Your task to perform on an android device: Open accessibility settings Image 0: 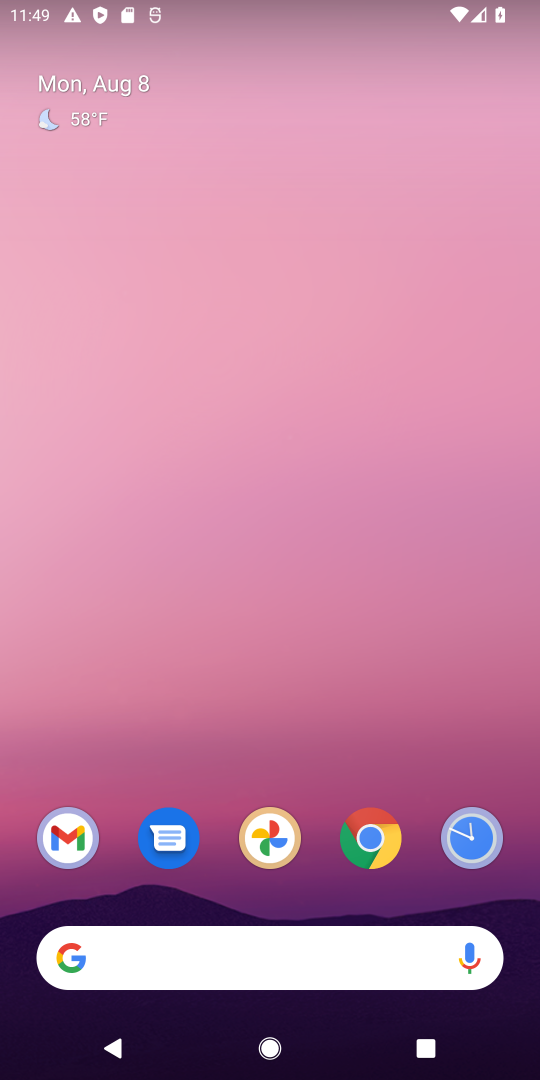
Step 0: press home button
Your task to perform on an android device: Open accessibility settings Image 1: 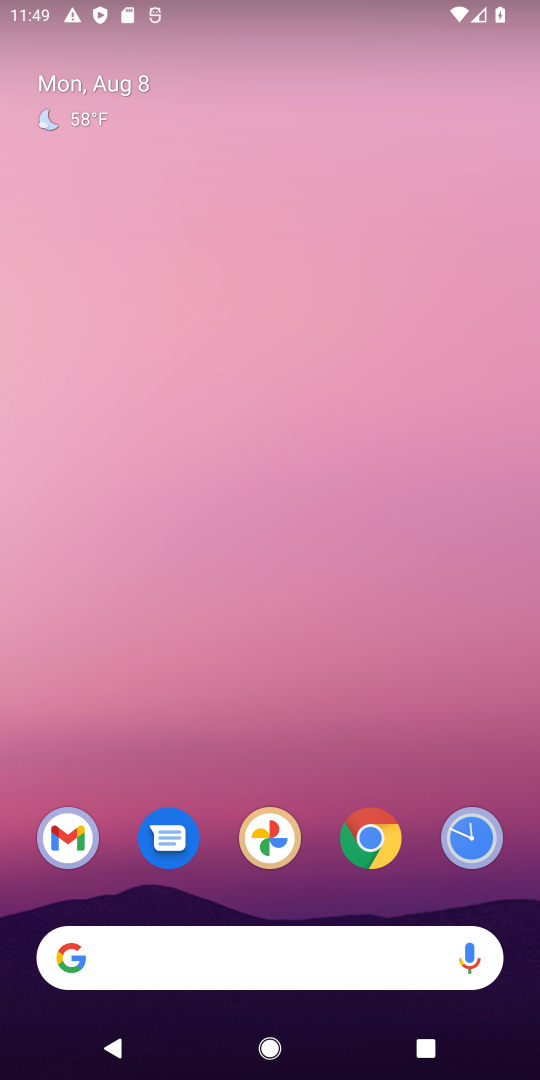
Step 1: drag from (345, 886) to (255, 161)
Your task to perform on an android device: Open accessibility settings Image 2: 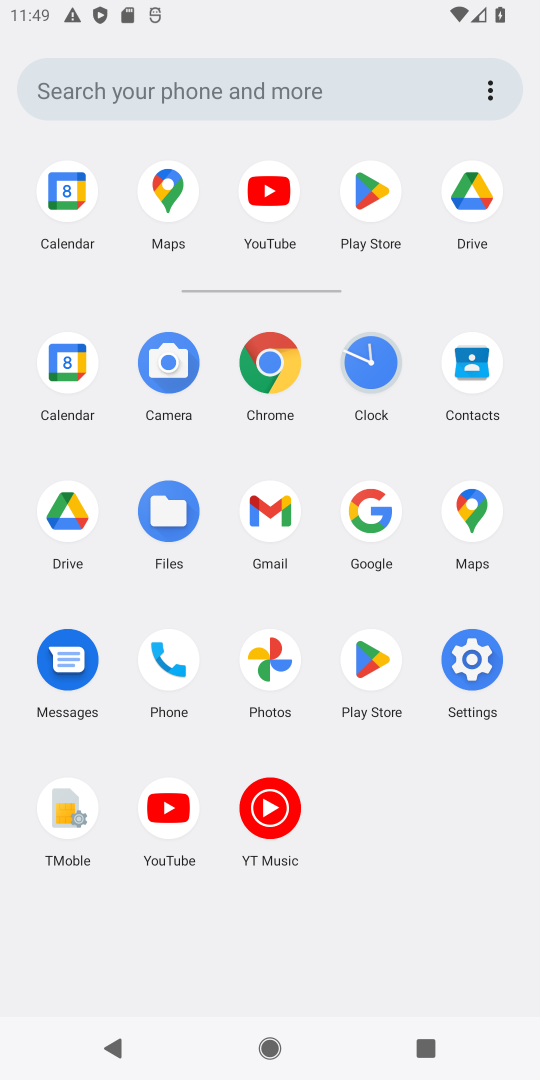
Step 2: click (472, 661)
Your task to perform on an android device: Open accessibility settings Image 3: 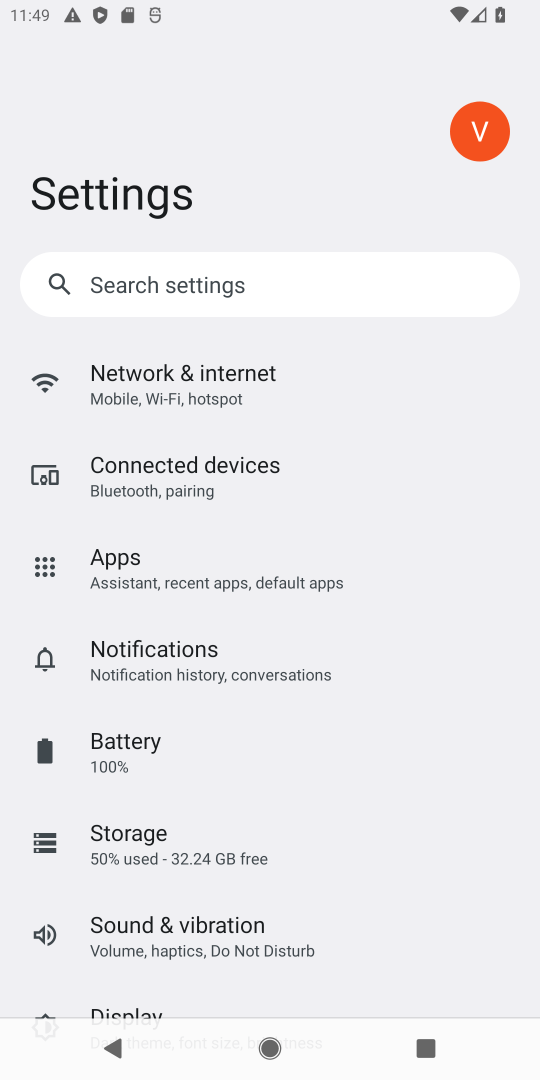
Step 3: drag from (443, 899) to (421, 59)
Your task to perform on an android device: Open accessibility settings Image 4: 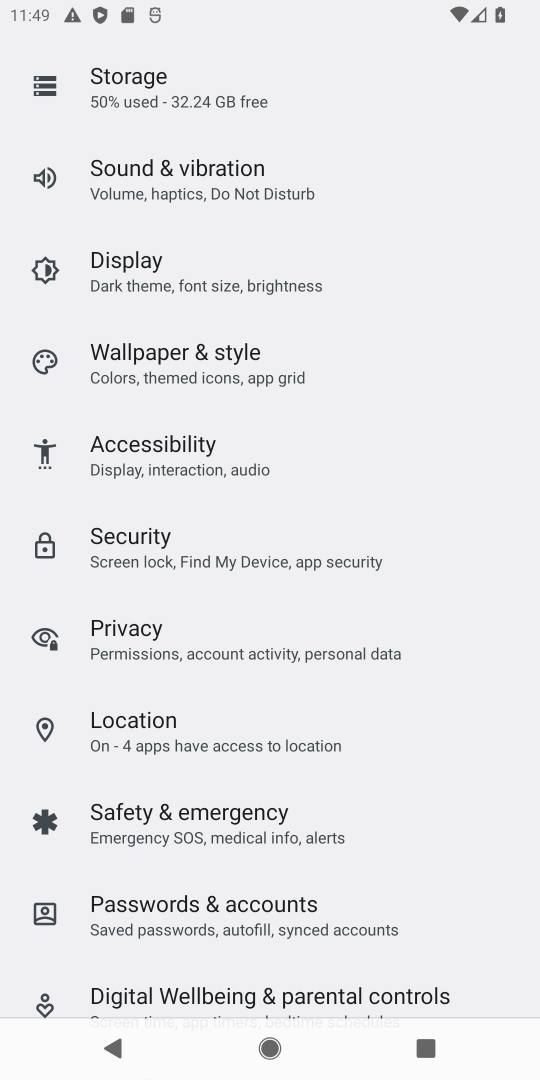
Step 4: click (150, 460)
Your task to perform on an android device: Open accessibility settings Image 5: 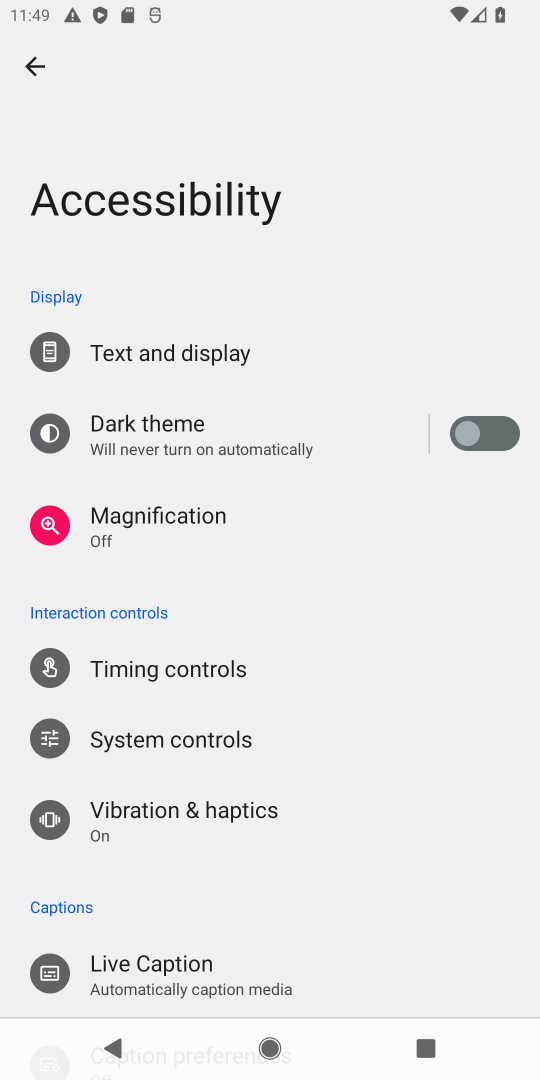
Step 5: task complete